Your task to perform on an android device: search for starred emails in the gmail app Image 0: 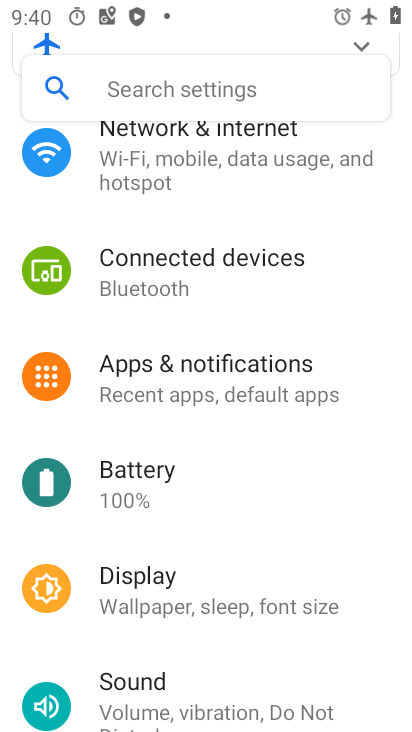
Step 0: press home button
Your task to perform on an android device: search for starred emails in the gmail app Image 1: 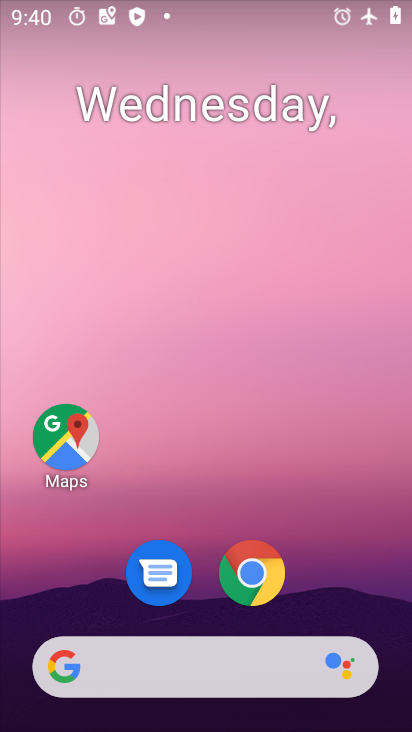
Step 1: drag from (321, 570) to (312, 15)
Your task to perform on an android device: search for starred emails in the gmail app Image 2: 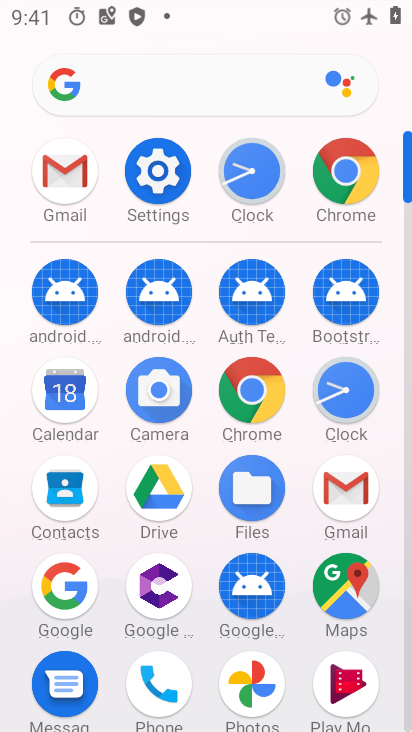
Step 2: click (352, 490)
Your task to perform on an android device: search for starred emails in the gmail app Image 3: 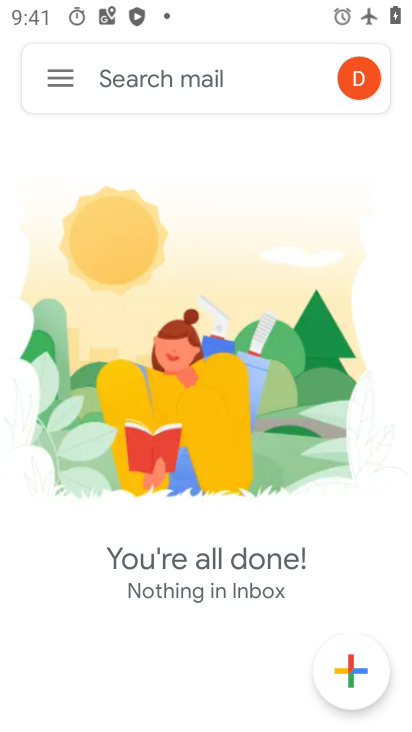
Step 3: click (58, 84)
Your task to perform on an android device: search for starred emails in the gmail app Image 4: 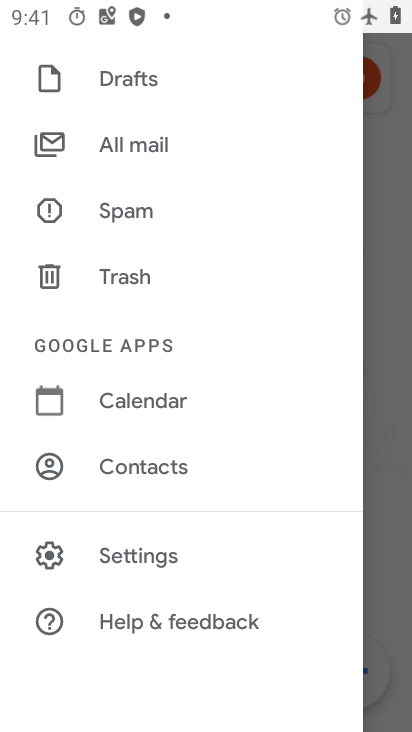
Step 4: drag from (161, 340) to (126, 666)
Your task to perform on an android device: search for starred emails in the gmail app Image 5: 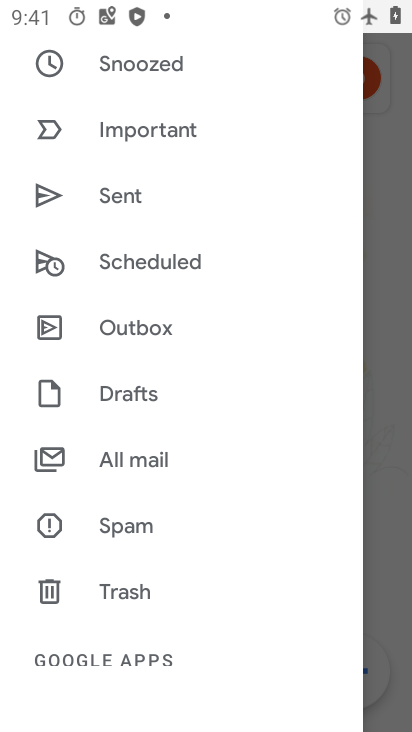
Step 5: drag from (174, 205) to (143, 599)
Your task to perform on an android device: search for starred emails in the gmail app Image 6: 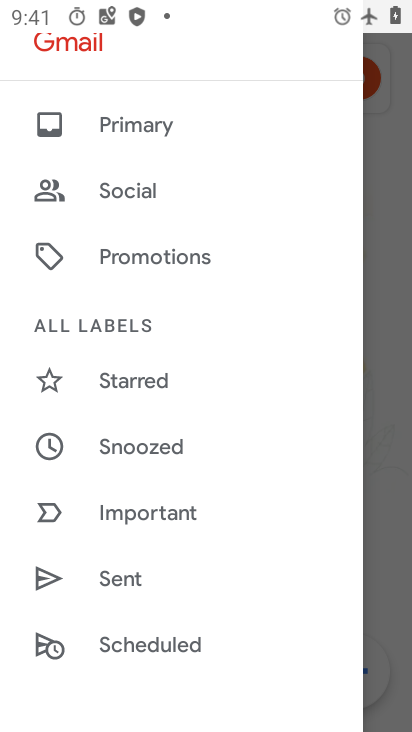
Step 6: click (159, 377)
Your task to perform on an android device: search for starred emails in the gmail app Image 7: 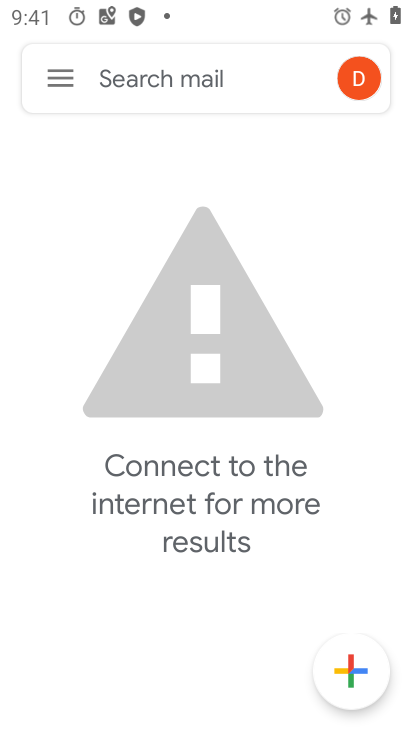
Step 7: task complete